Your task to perform on an android device: Open calendar and show me the first week of next month Image 0: 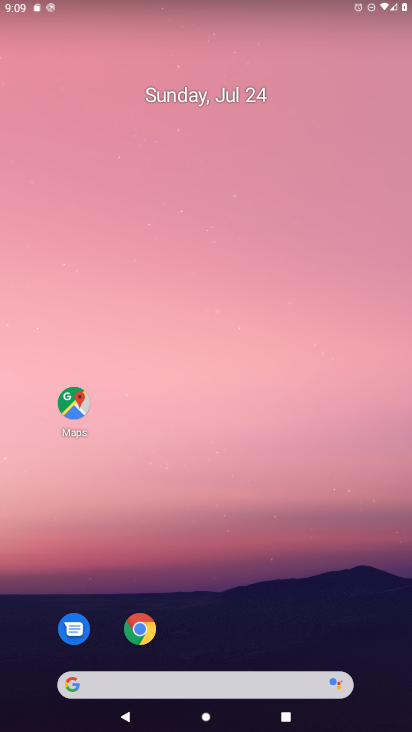
Step 0: drag from (347, 611) to (124, 126)
Your task to perform on an android device: Open calendar and show me the first week of next month Image 1: 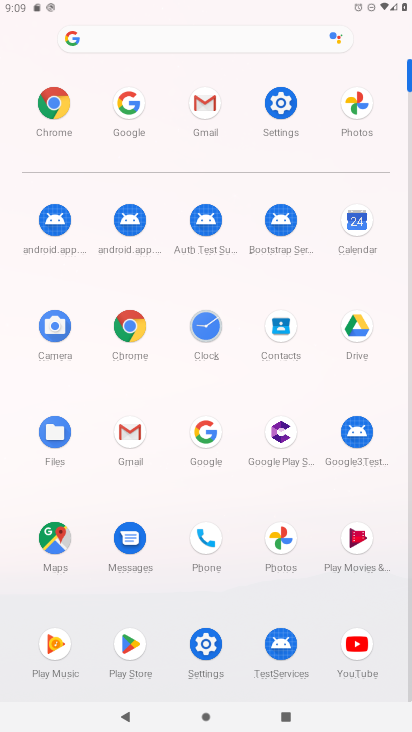
Step 1: click (362, 222)
Your task to perform on an android device: Open calendar and show me the first week of next month Image 2: 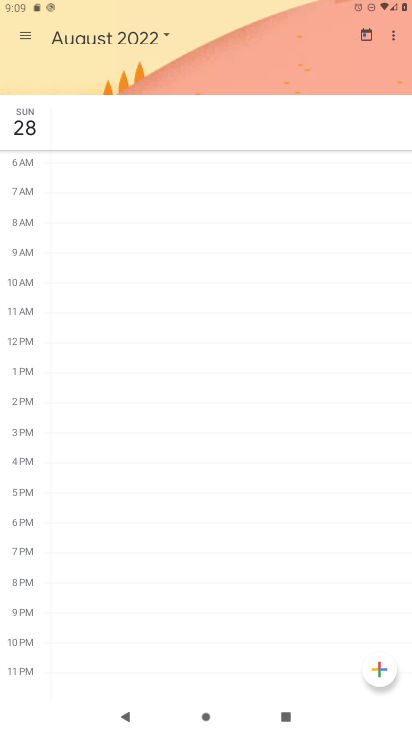
Step 2: click (107, 30)
Your task to perform on an android device: Open calendar and show me the first week of next month Image 3: 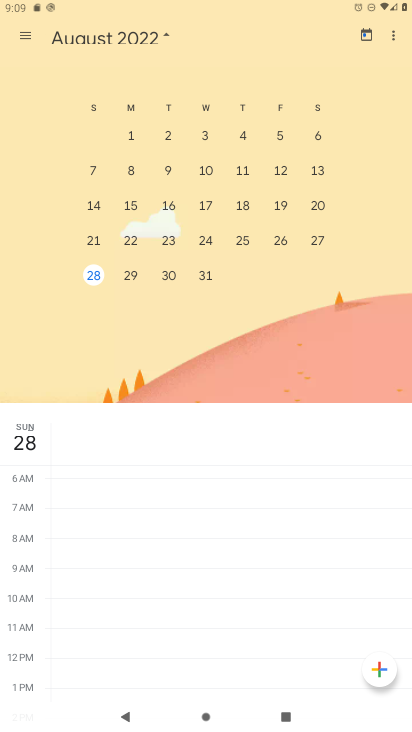
Step 3: drag from (353, 192) to (12, 175)
Your task to perform on an android device: Open calendar and show me the first week of next month Image 4: 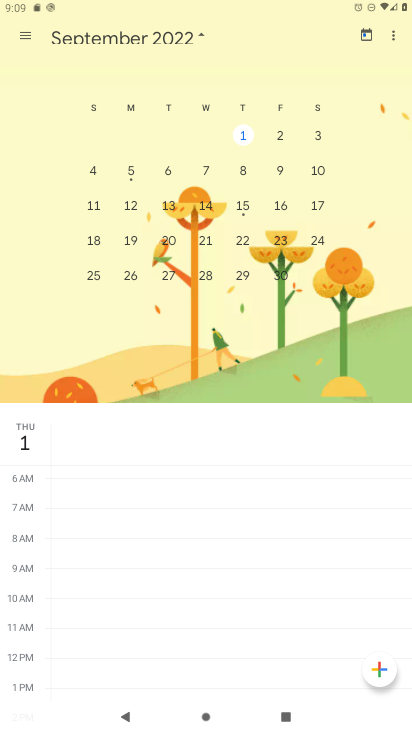
Step 4: click (92, 167)
Your task to perform on an android device: Open calendar and show me the first week of next month Image 5: 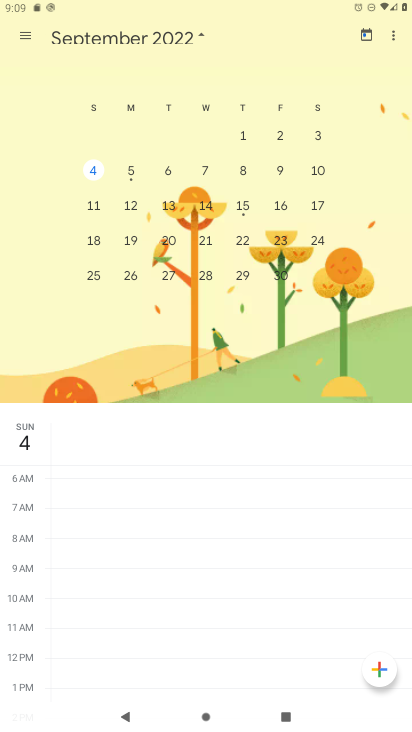
Step 5: task complete